Your task to perform on an android device: change the clock style Image 0: 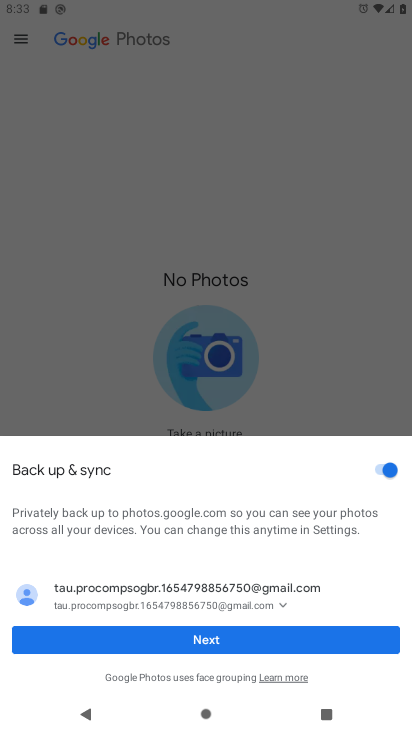
Step 0: press home button
Your task to perform on an android device: change the clock style Image 1: 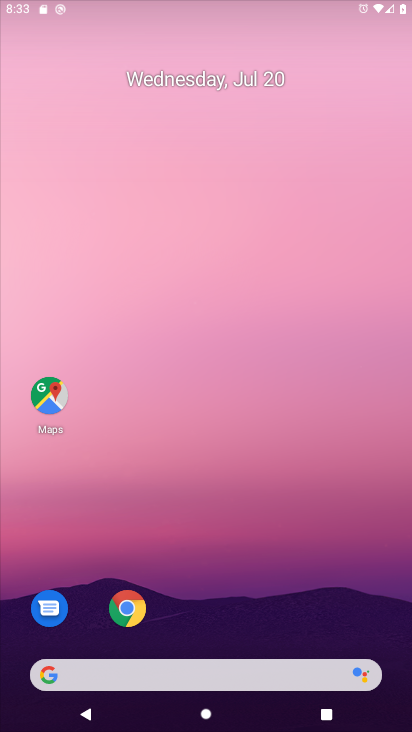
Step 1: drag from (224, 628) to (287, 224)
Your task to perform on an android device: change the clock style Image 2: 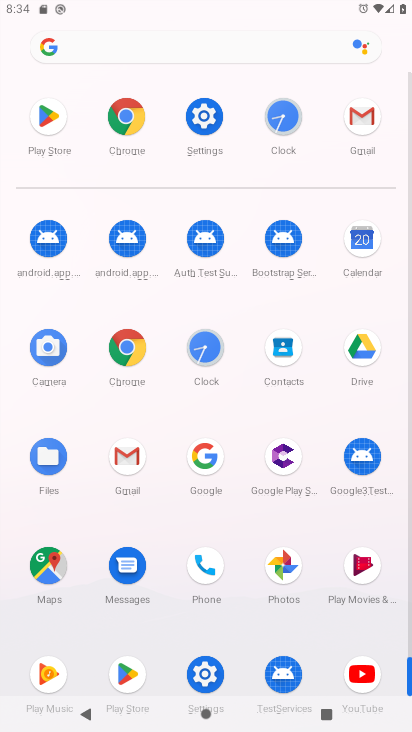
Step 2: click (209, 341)
Your task to perform on an android device: change the clock style Image 3: 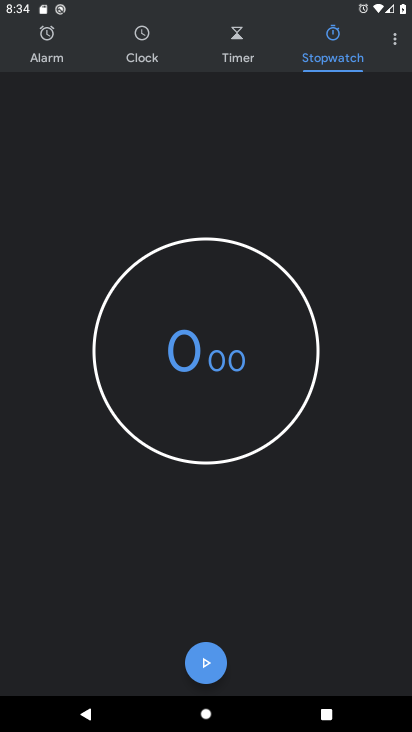
Step 3: click (402, 35)
Your task to perform on an android device: change the clock style Image 4: 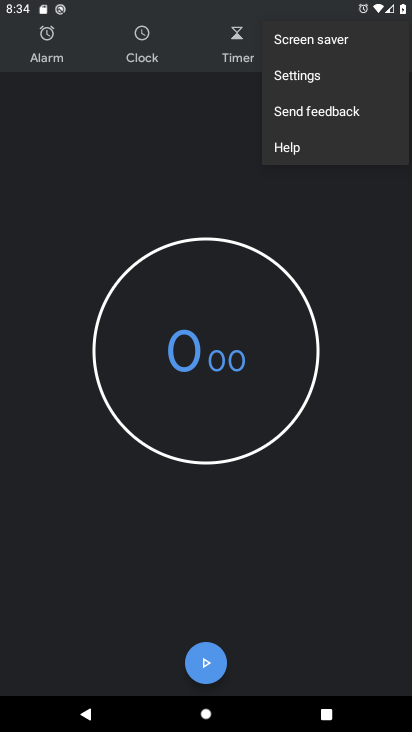
Step 4: click (322, 73)
Your task to perform on an android device: change the clock style Image 5: 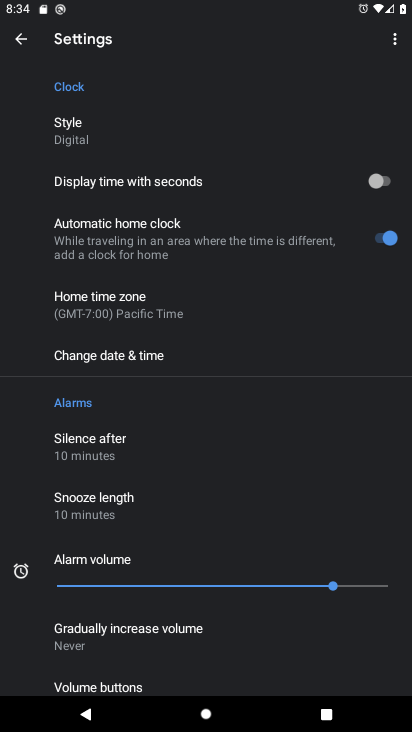
Step 5: click (98, 126)
Your task to perform on an android device: change the clock style Image 6: 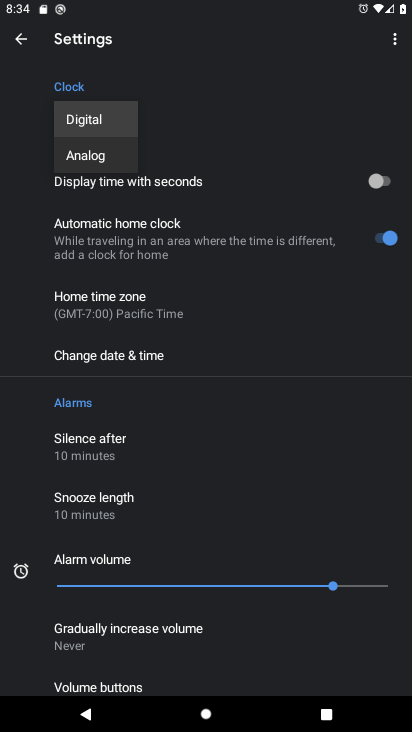
Step 6: click (100, 149)
Your task to perform on an android device: change the clock style Image 7: 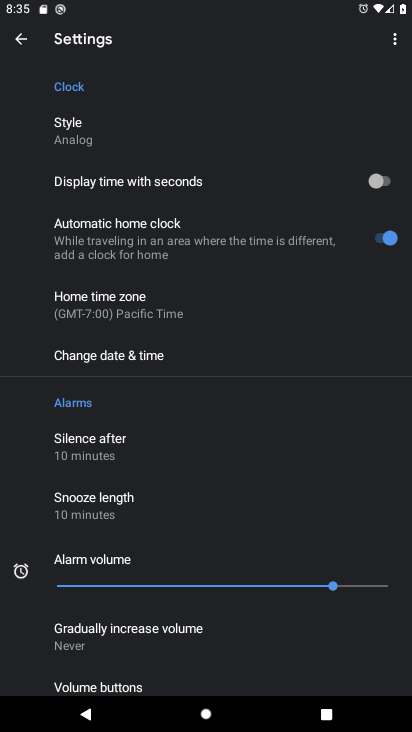
Step 7: task complete